Your task to perform on an android device: turn on improve location accuracy Image 0: 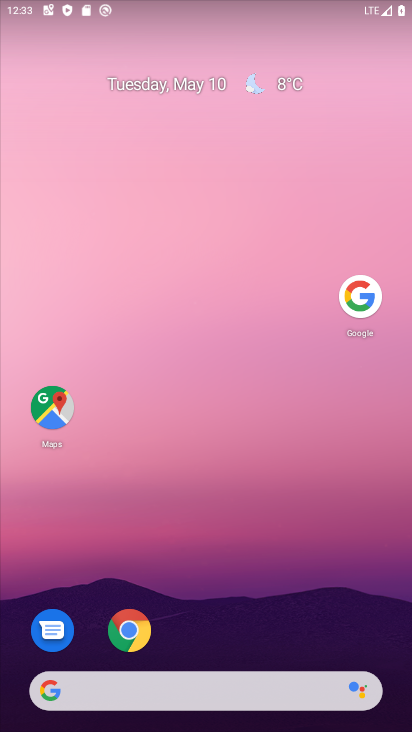
Step 0: press home button
Your task to perform on an android device: turn on improve location accuracy Image 1: 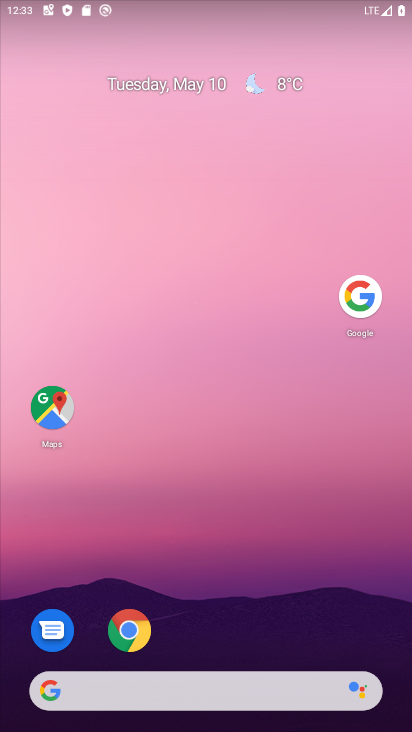
Step 1: drag from (165, 676) to (205, 173)
Your task to perform on an android device: turn on improve location accuracy Image 2: 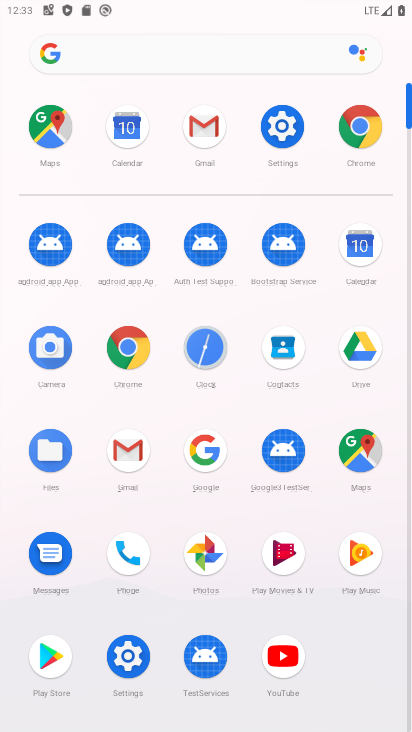
Step 2: click (287, 131)
Your task to perform on an android device: turn on improve location accuracy Image 3: 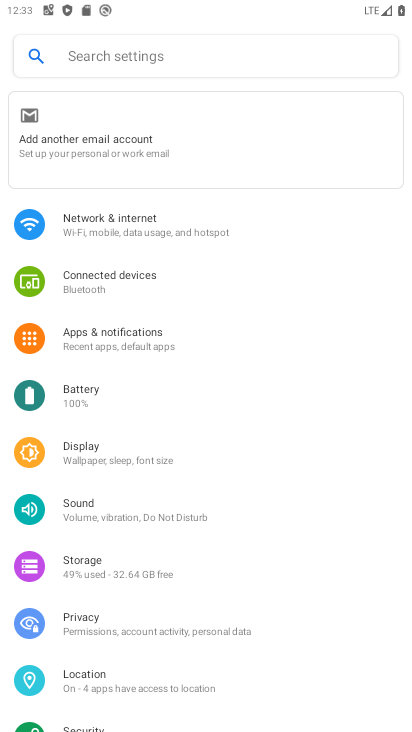
Step 3: click (94, 684)
Your task to perform on an android device: turn on improve location accuracy Image 4: 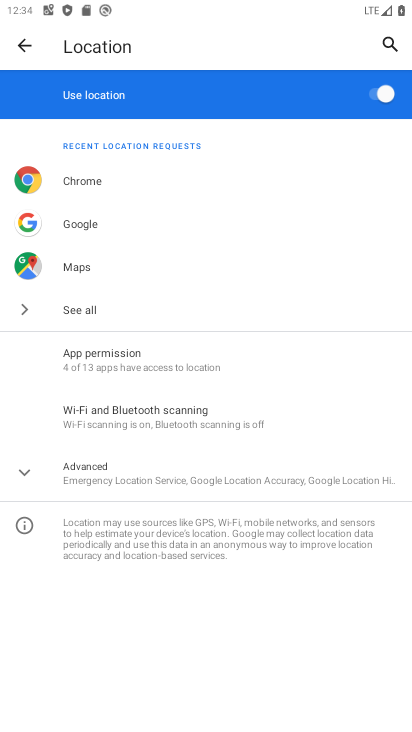
Step 4: click (93, 474)
Your task to perform on an android device: turn on improve location accuracy Image 5: 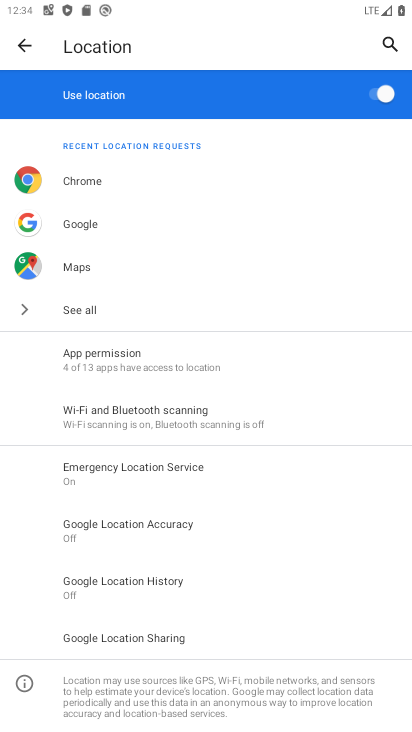
Step 5: click (145, 529)
Your task to perform on an android device: turn on improve location accuracy Image 6: 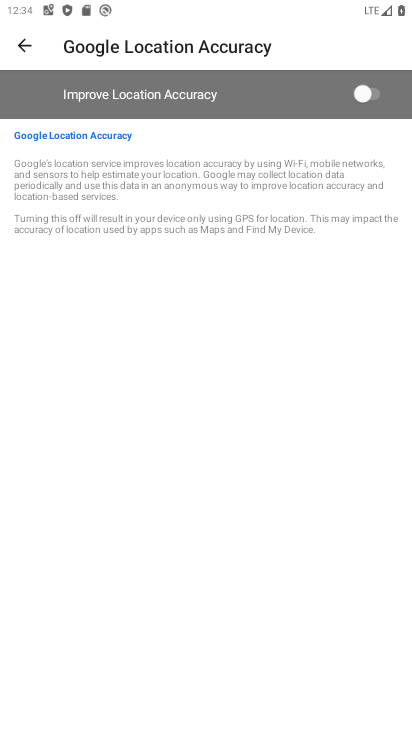
Step 6: click (371, 91)
Your task to perform on an android device: turn on improve location accuracy Image 7: 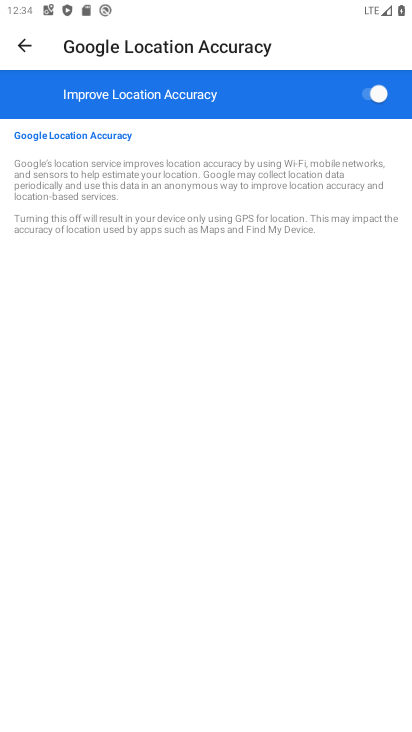
Step 7: task complete